Your task to perform on an android device: manage bookmarks in the chrome app Image 0: 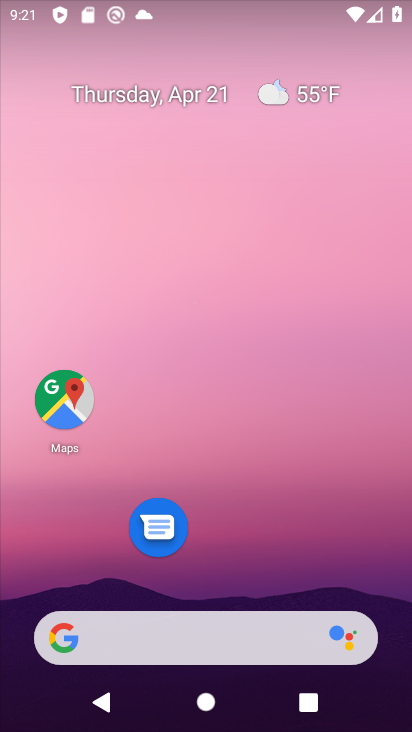
Step 0: drag from (192, 596) to (189, 55)
Your task to perform on an android device: manage bookmarks in the chrome app Image 1: 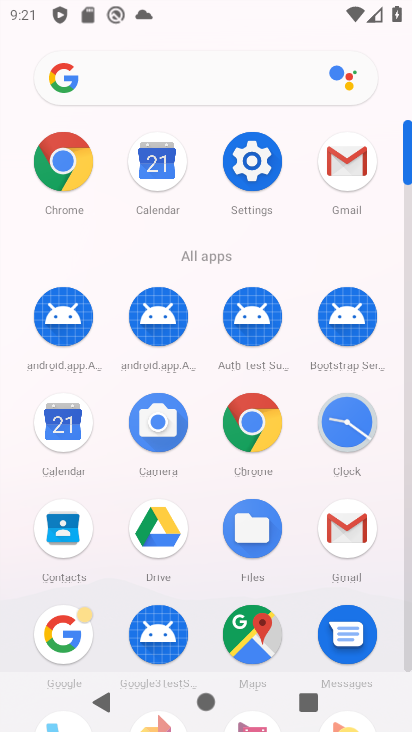
Step 1: click (82, 178)
Your task to perform on an android device: manage bookmarks in the chrome app Image 2: 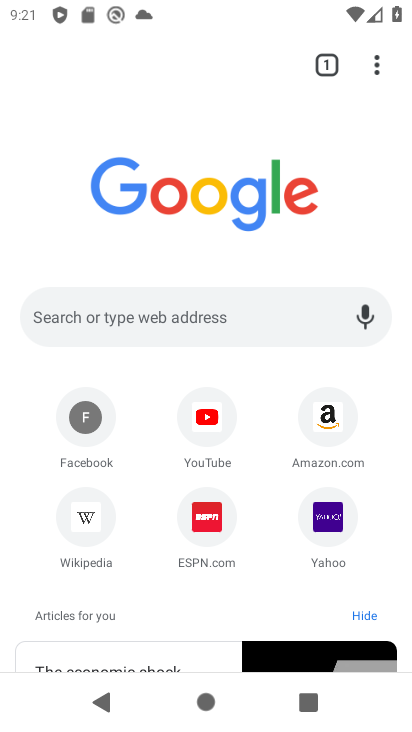
Step 2: task complete